Your task to perform on an android device: Go to sound settings Image 0: 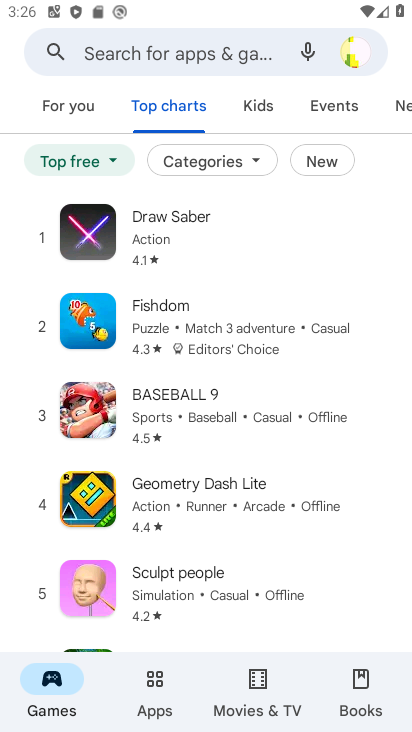
Step 0: drag from (160, 516) to (121, 363)
Your task to perform on an android device: Go to sound settings Image 1: 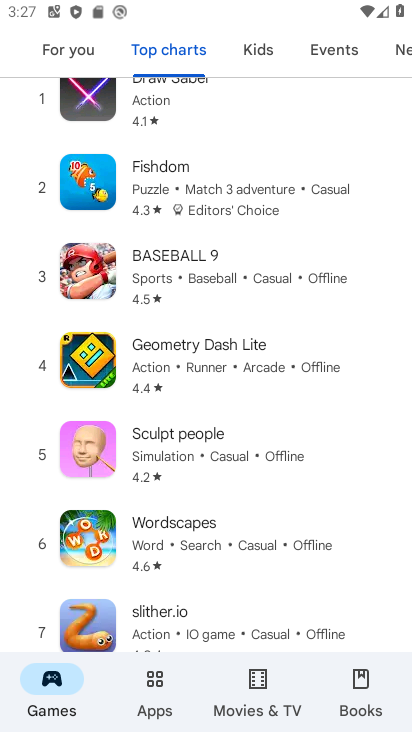
Step 1: press home button
Your task to perform on an android device: Go to sound settings Image 2: 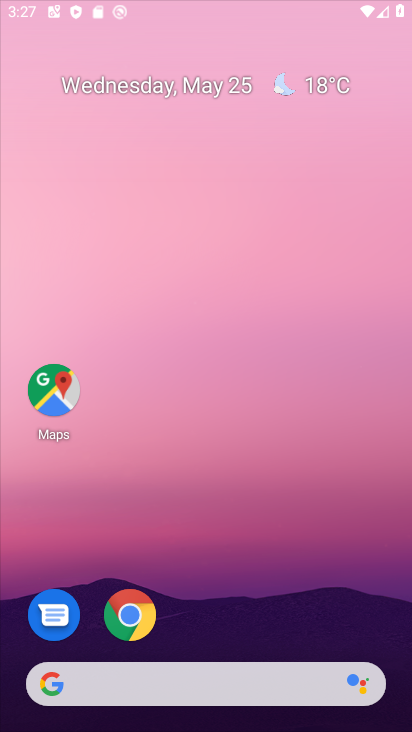
Step 2: click (164, 394)
Your task to perform on an android device: Go to sound settings Image 3: 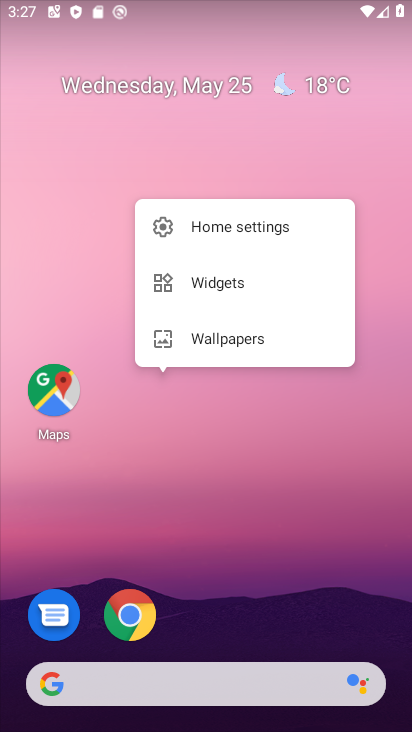
Step 3: click (200, 501)
Your task to perform on an android device: Go to sound settings Image 4: 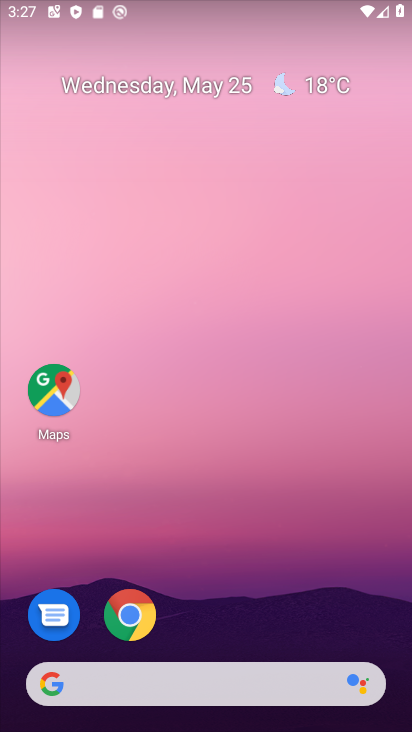
Step 4: click (155, 459)
Your task to perform on an android device: Go to sound settings Image 5: 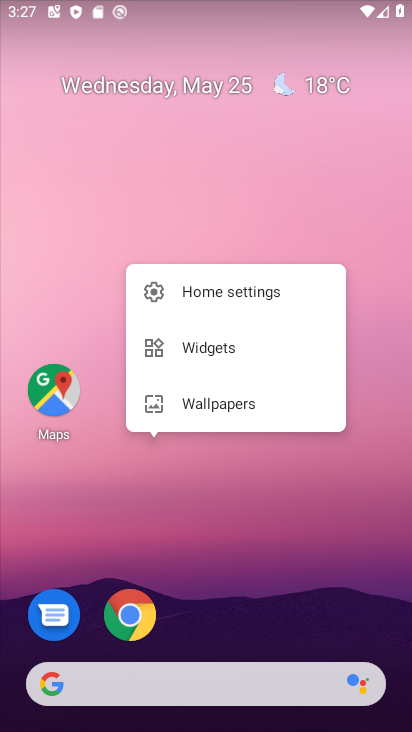
Step 5: click (211, 542)
Your task to perform on an android device: Go to sound settings Image 6: 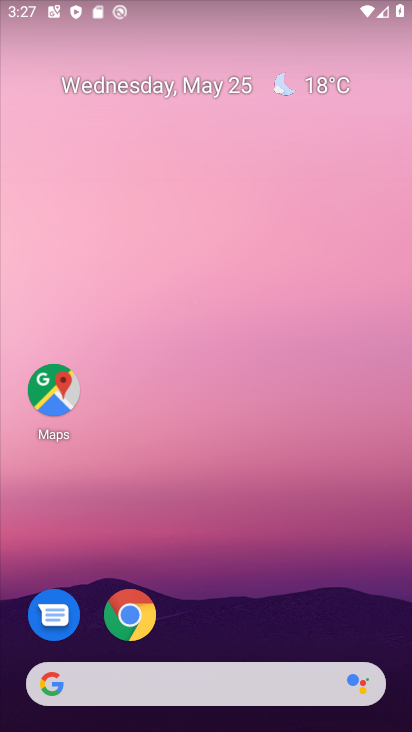
Step 6: drag from (228, 631) to (195, 6)
Your task to perform on an android device: Go to sound settings Image 7: 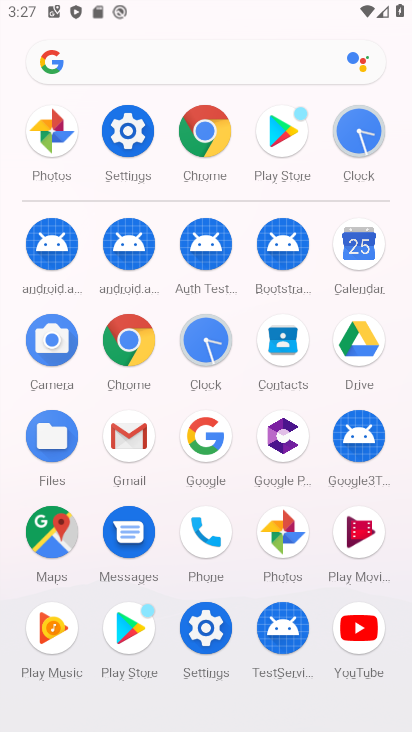
Step 7: click (120, 132)
Your task to perform on an android device: Go to sound settings Image 8: 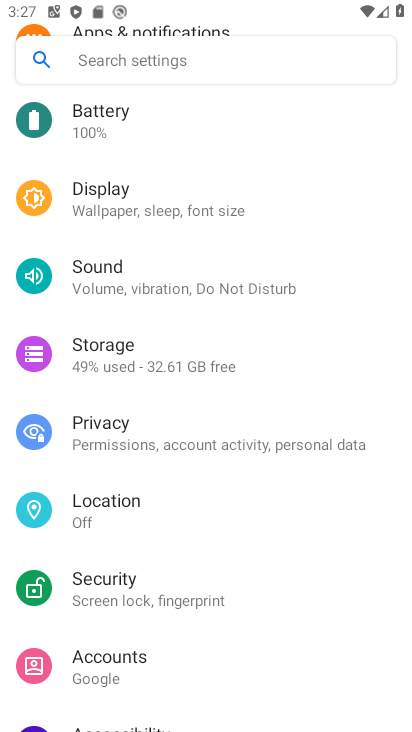
Step 8: click (133, 279)
Your task to perform on an android device: Go to sound settings Image 9: 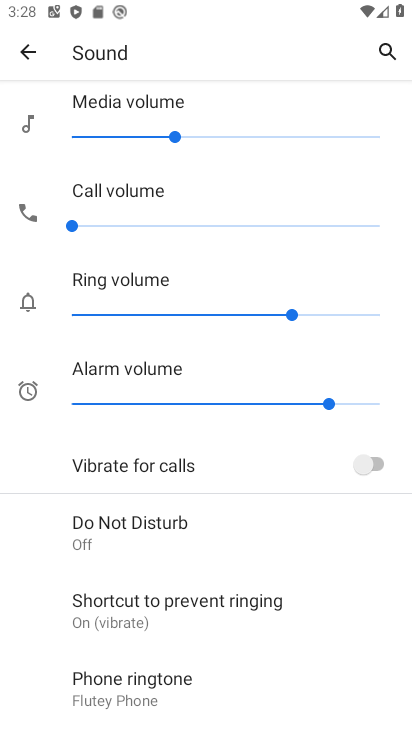
Step 9: task complete